Your task to perform on an android device: see creations saved in the google photos Image 0: 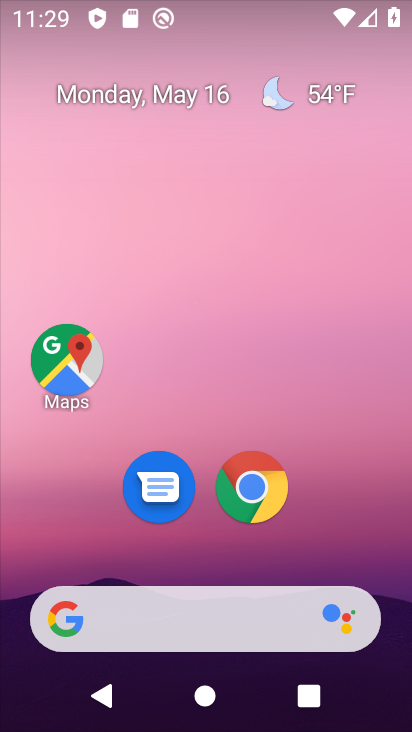
Step 0: drag from (228, 551) to (297, 67)
Your task to perform on an android device: see creations saved in the google photos Image 1: 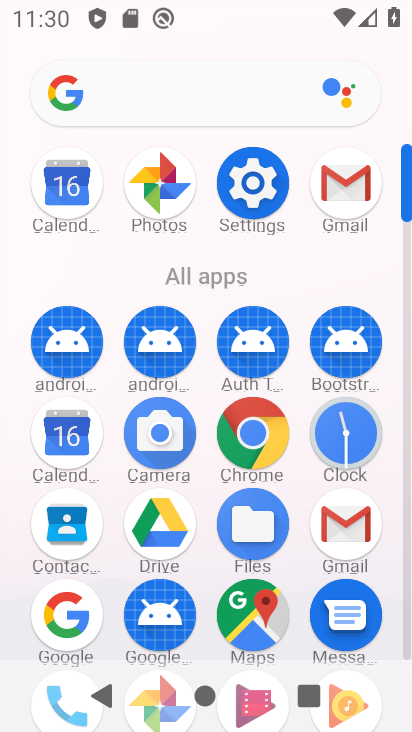
Step 1: drag from (205, 600) to (256, 187)
Your task to perform on an android device: see creations saved in the google photos Image 2: 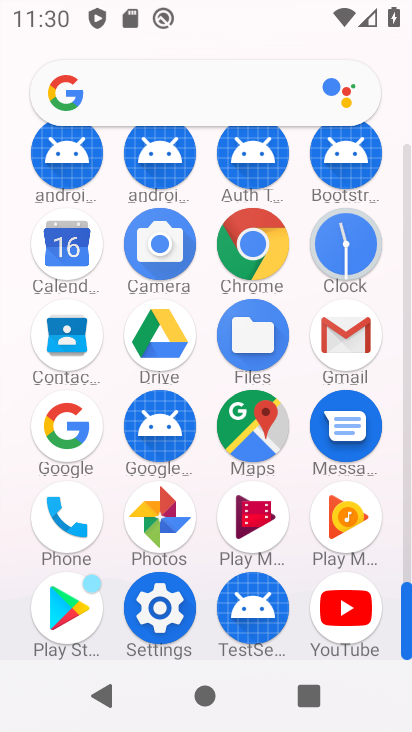
Step 2: click (172, 510)
Your task to perform on an android device: see creations saved in the google photos Image 3: 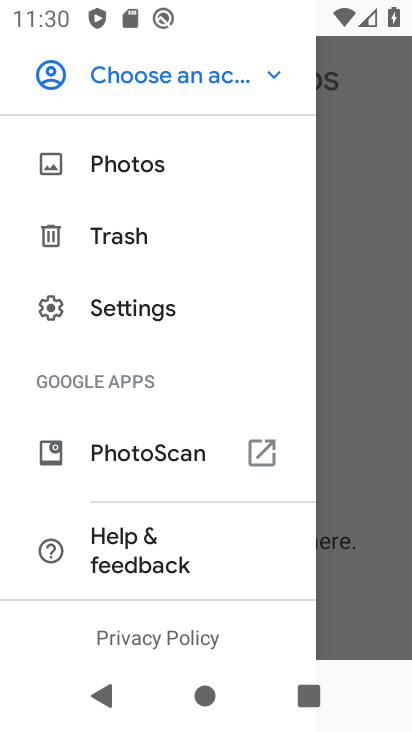
Step 3: task complete